Your task to perform on an android device: find snoozed emails in the gmail app Image 0: 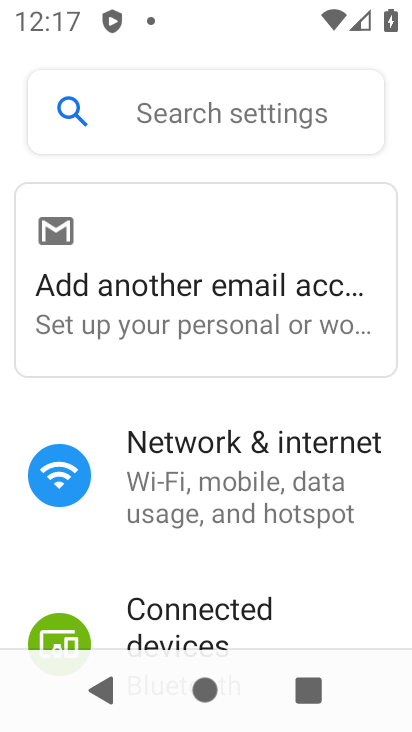
Step 0: press home button
Your task to perform on an android device: find snoozed emails in the gmail app Image 1: 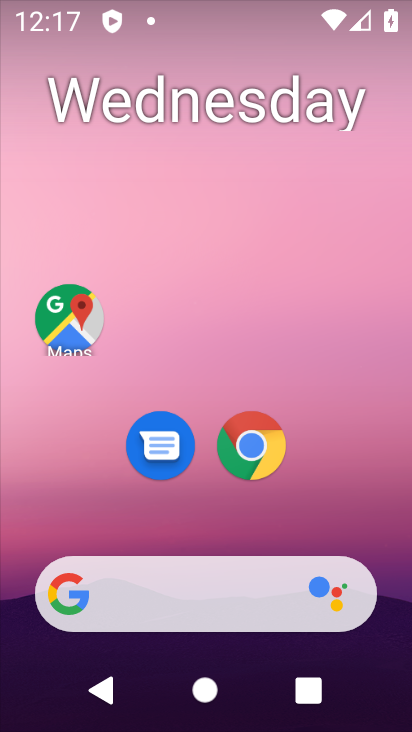
Step 1: drag from (180, 590) to (122, 124)
Your task to perform on an android device: find snoozed emails in the gmail app Image 2: 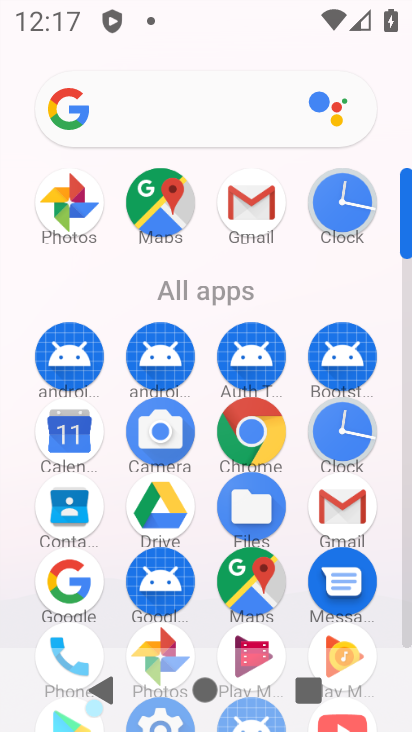
Step 2: click (254, 205)
Your task to perform on an android device: find snoozed emails in the gmail app Image 3: 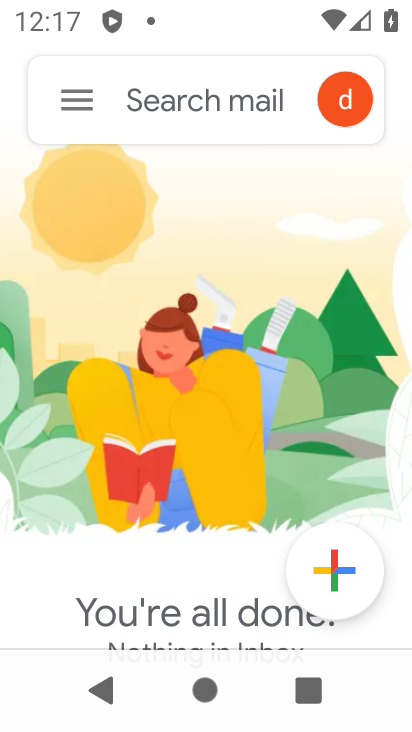
Step 3: click (82, 118)
Your task to perform on an android device: find snoozed emails in the gmail app Image 4: 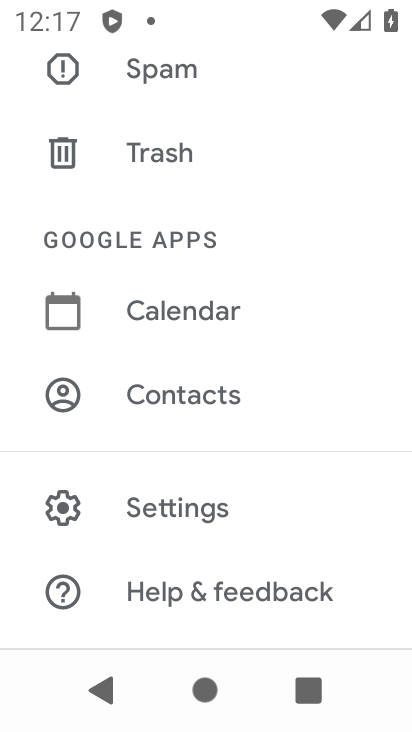
Step 4: drag from (176, 138) to (304, 557)
Your task to perform on an android device: find snoozed emails in the gmail app Image 5: 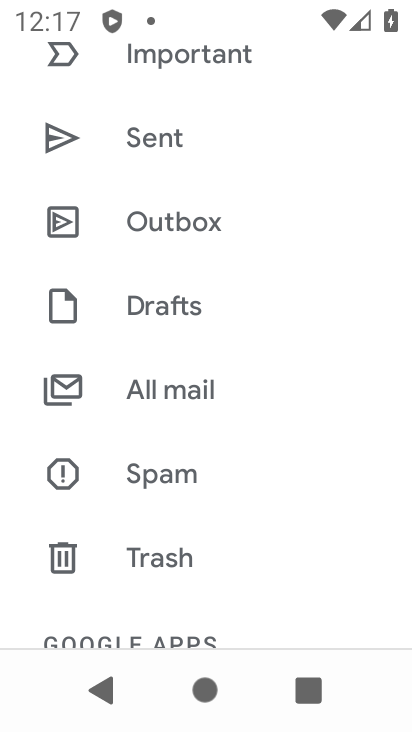
Step 5: drag from (181, 113) to (308, 596)
Your task to perform on an android device: find snoozed emails in the gmail app Image 6: 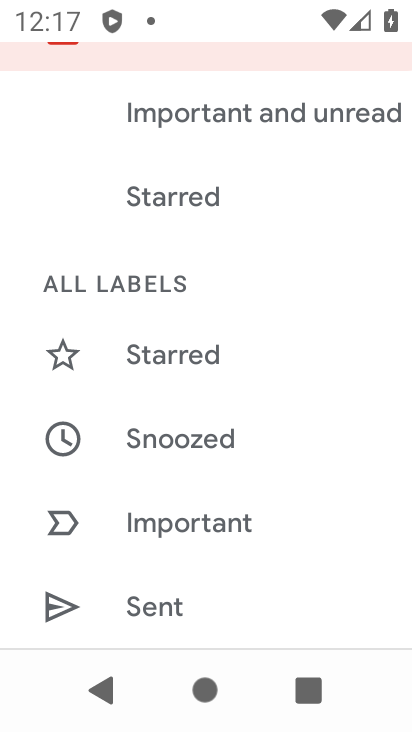
Step 6: click (201, 437)
Your task to perform on an android device: find snoozed emails in the gmail app Image 7: 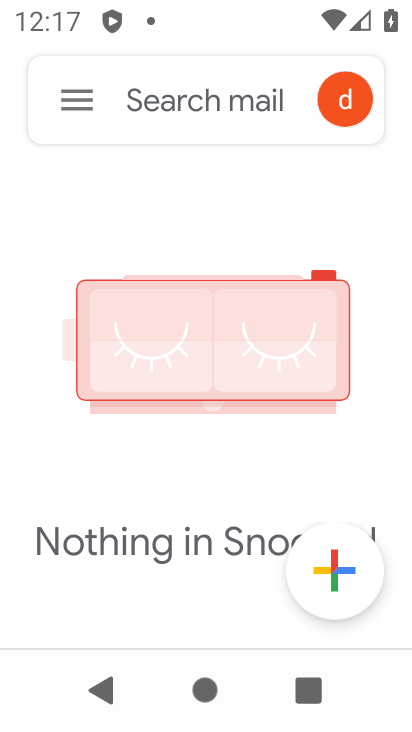
Step 7: task complete